Your task to perform on an android device: See recent photos Image 0: 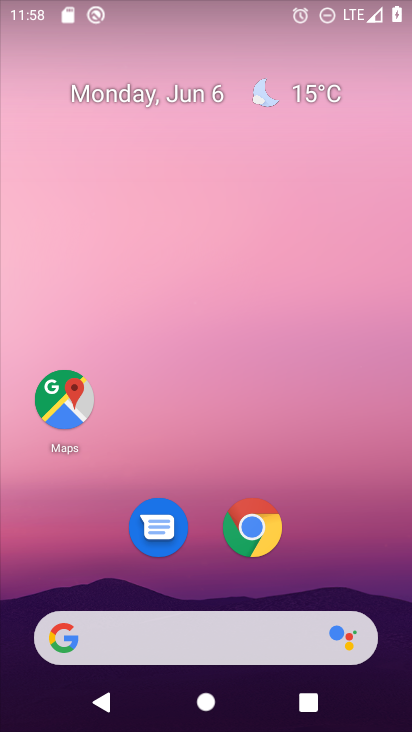
Step 0: drag from (343, 527) to (334, 99)
Your task to perform on an android device: See recent photos Image 1: 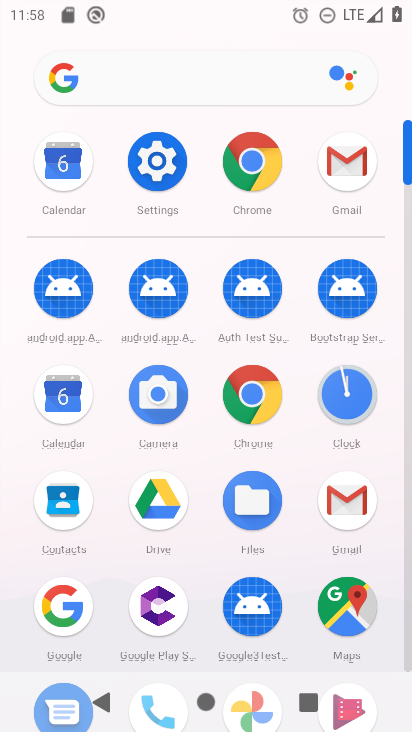
Step 1: drag from (295, 561) to (291, 298)
Your task to perform on an android device: See recent photos Image 2: 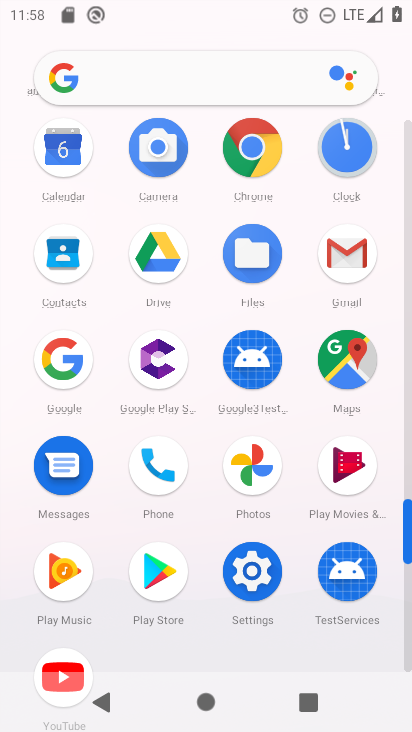
Step 2: click (260, 480)
Your task to perform on an android device: See recent photos Image 3: 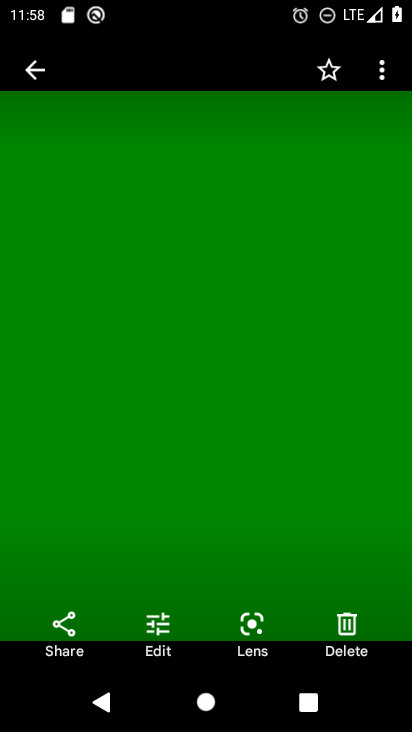
Step 3: task complete